Your task to perform on an android device: change the clock display to digital Image 0: 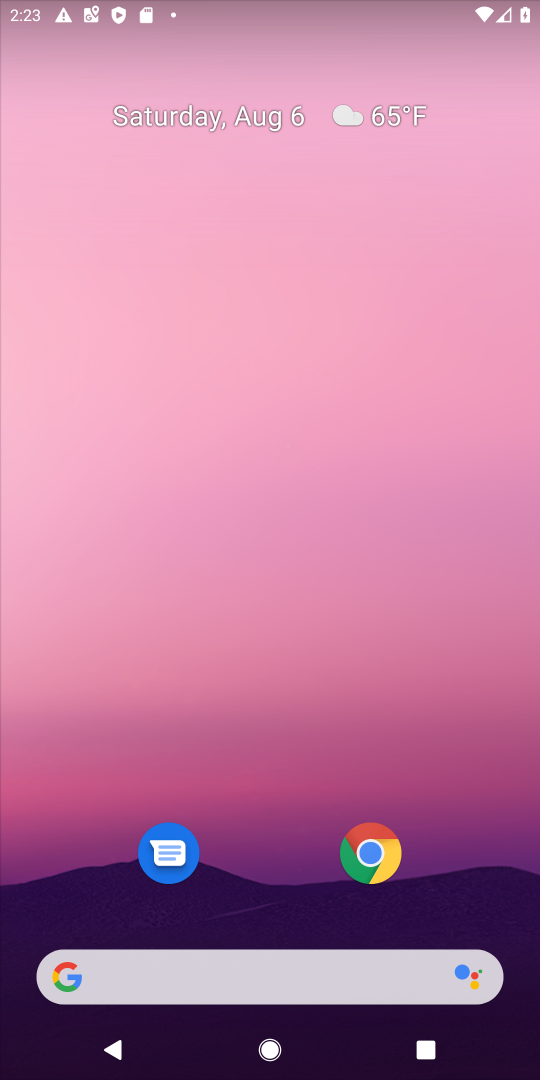
Step 0: drag from (248, 847) to (322, 73)
Your task to perform on an android device: change the clock display to digital Image 1: 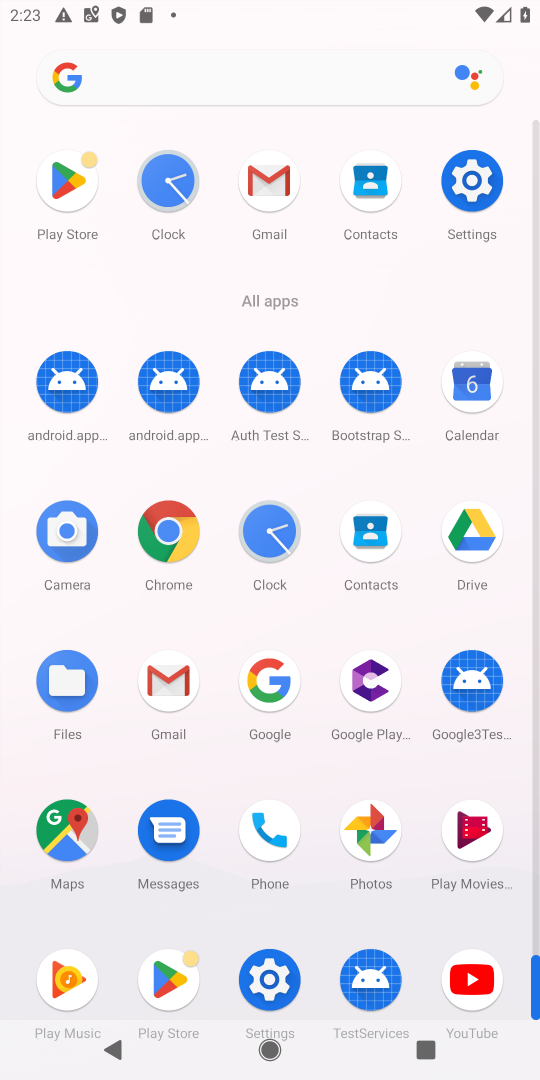
Step 1: click (148, 187)
Your task to perform on an android device: change the clock display to digital Image 2: 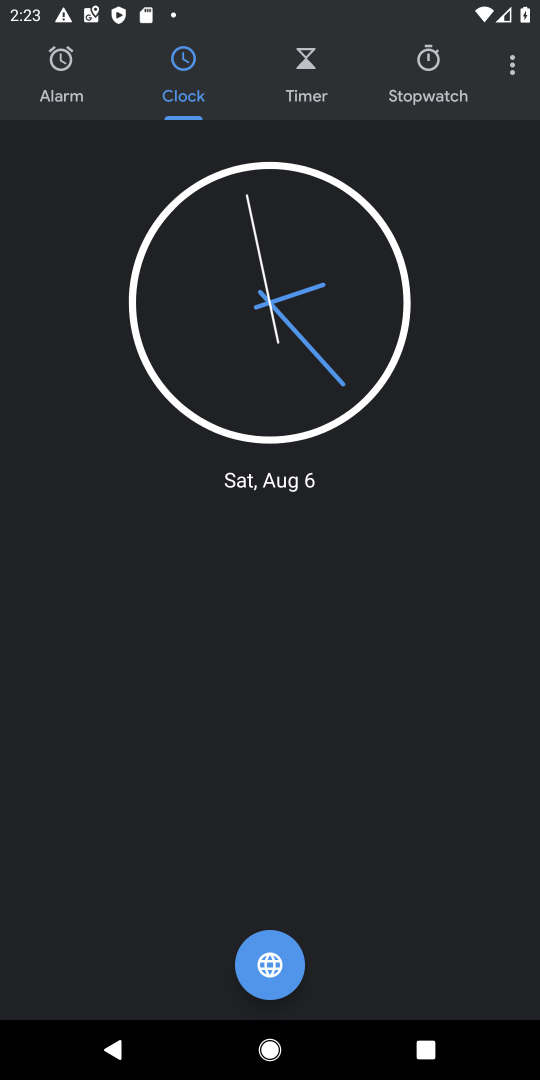
Step 2: click (509, 60)
Your task to perform on an android device: change the clock display to digital Image 3: 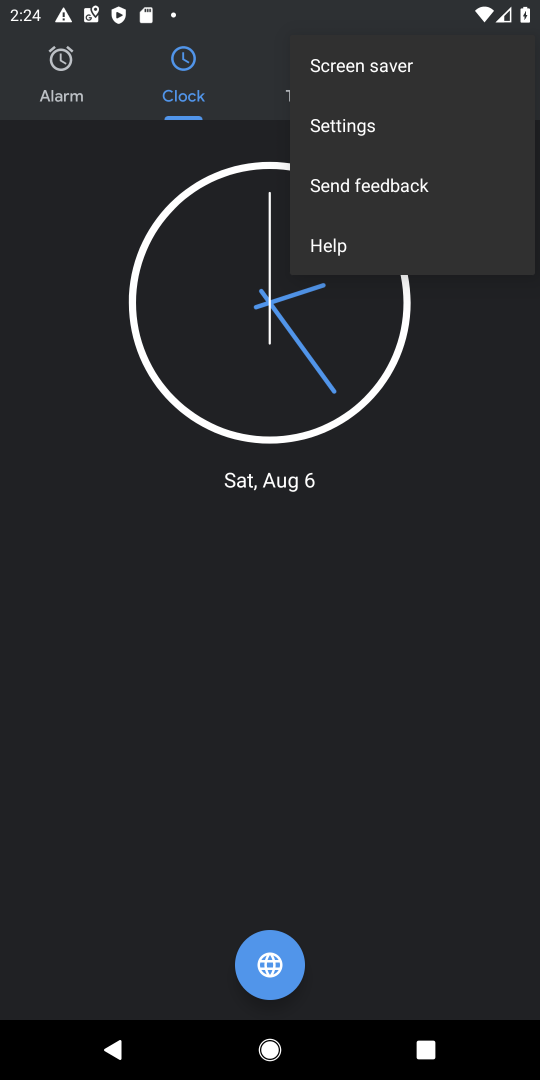
Step 3: click (385, 127)
Your task to perform on an android device: change the clock display to digital Image 4: 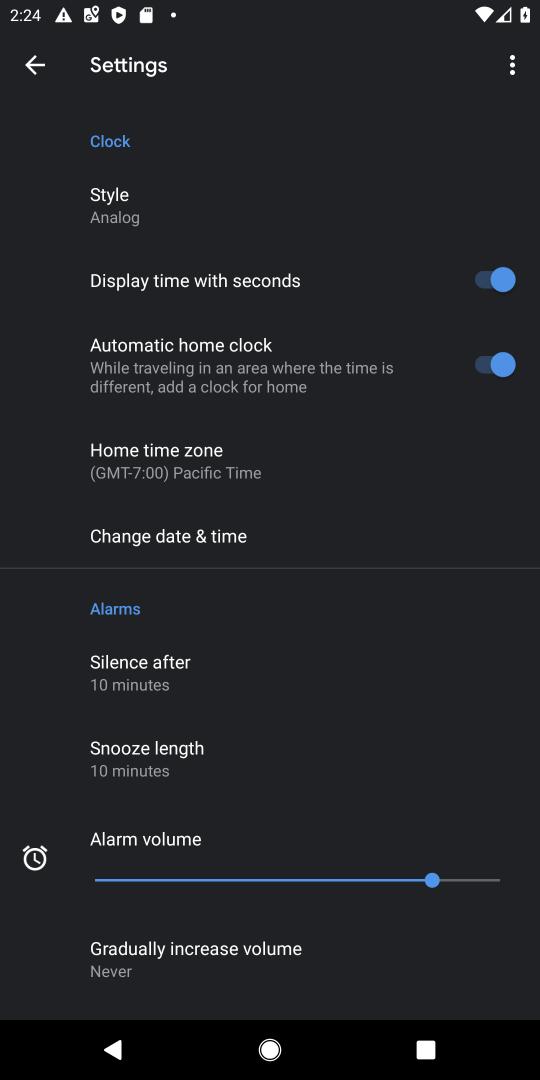
Step 4: click (124, 554)
Your task to perform on an android device: change the clock display to digital Image 5: 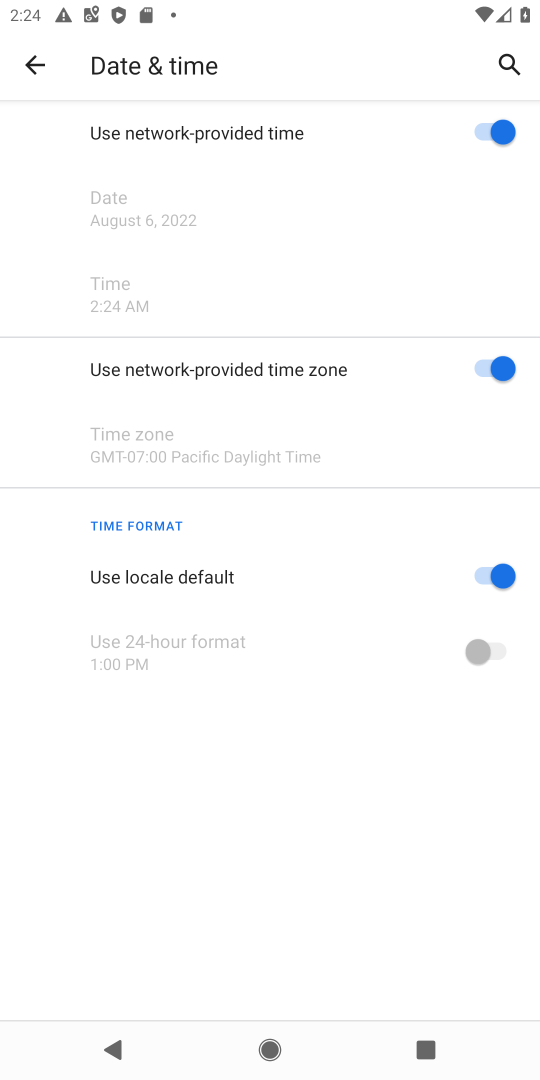
Step 5: press back button
Your task to perform on an android device: change the clock display to digital Image 6: 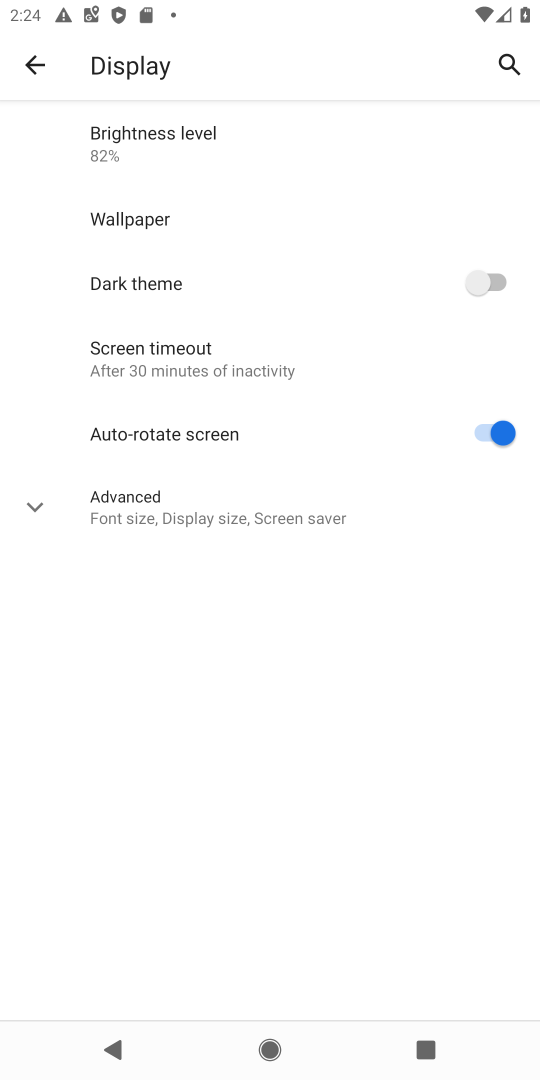
Step 6: press back button
Your task to perform on an android device: change the clock display to digital Image 7: 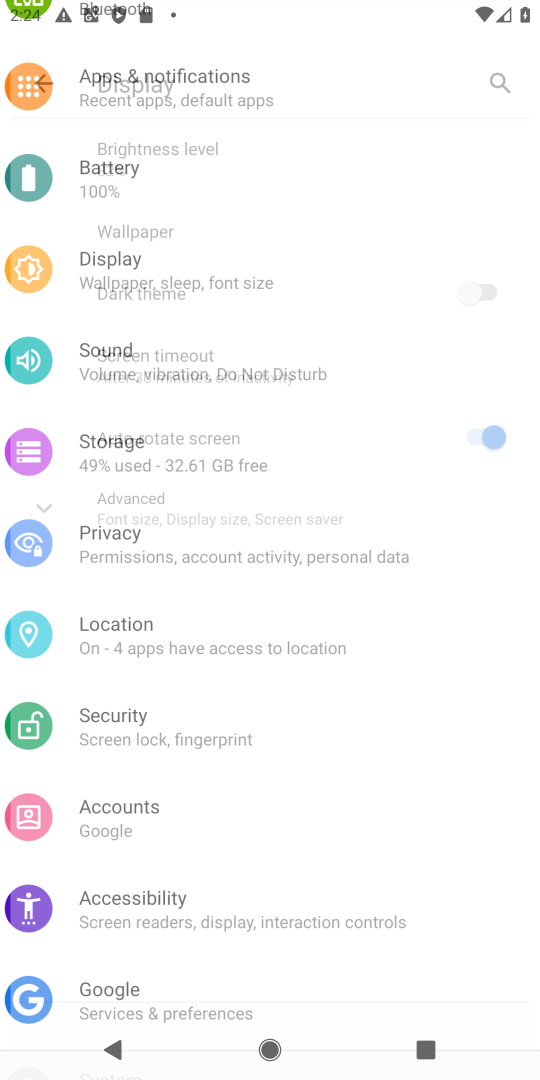
Step 7: press back button
Your task to perform on an android device: change the clock display to digital Image 8: 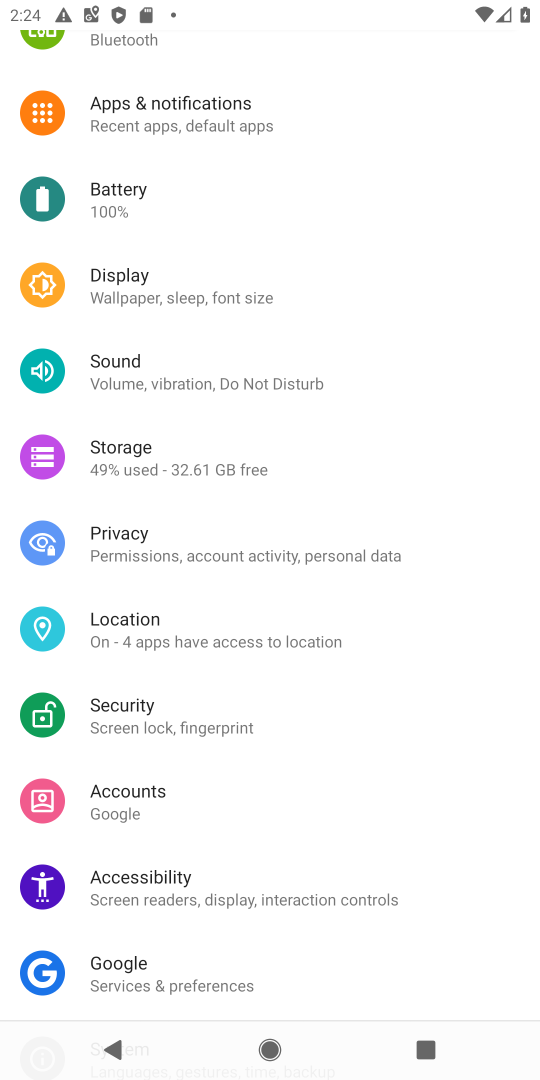
Step 8: press back button
Your task to perform on an android device: change the clock display to digital Image 9: 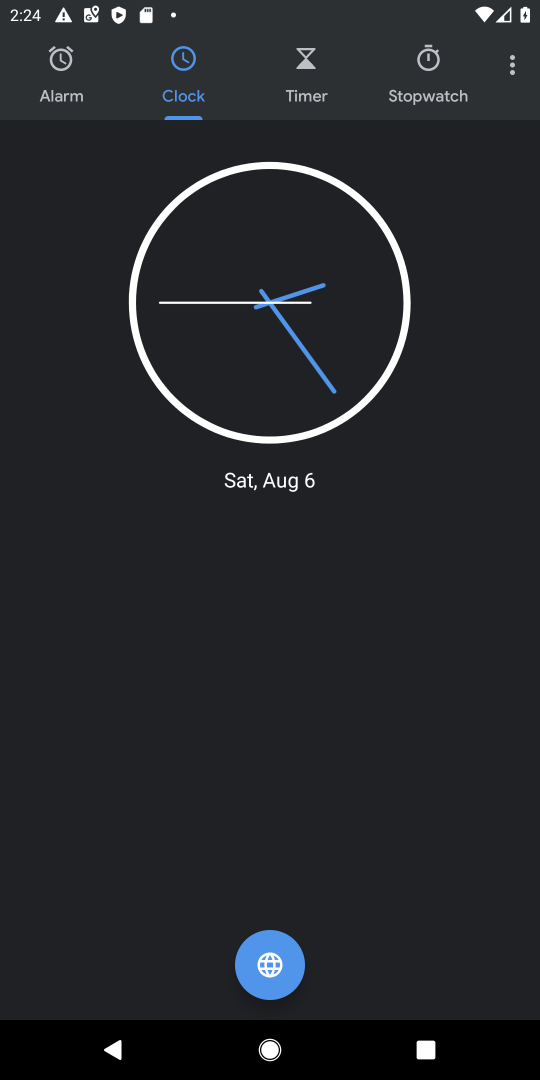
Step 9: press back button
Your task to perform on an android device: change the clock display to digital Image 10: 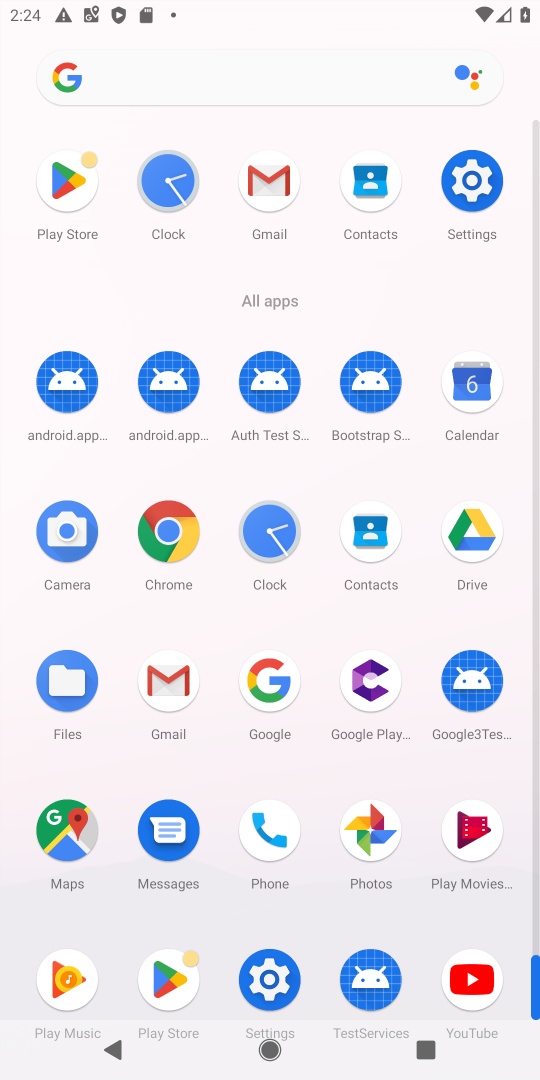
Step 10: click (256, 527)
Your task to perform on an android device: change the clock display to digital Image 11: 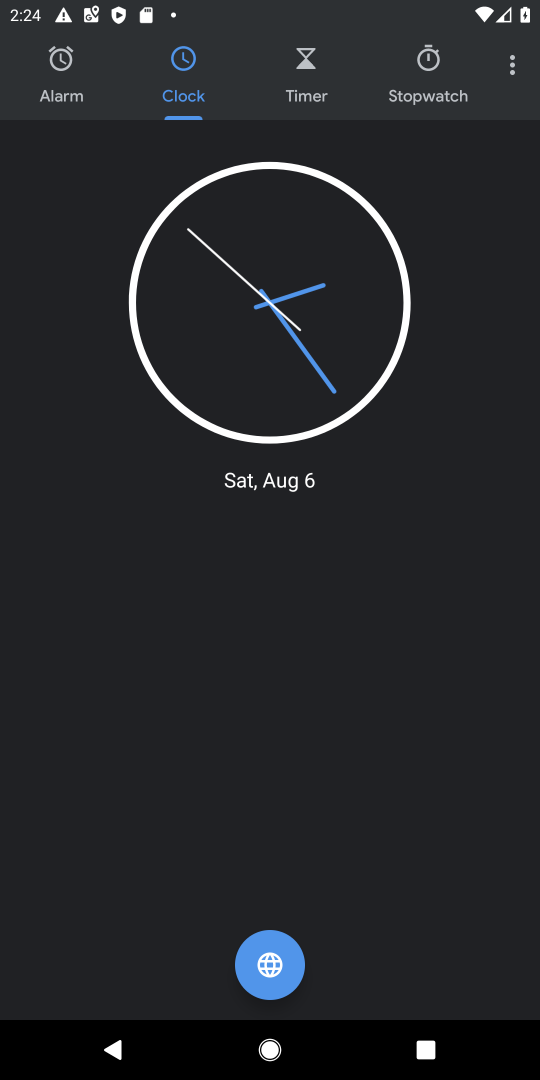
Step 11: click (509, 64)
Your task to perform on an android device: change the clock display to digital Image 12: 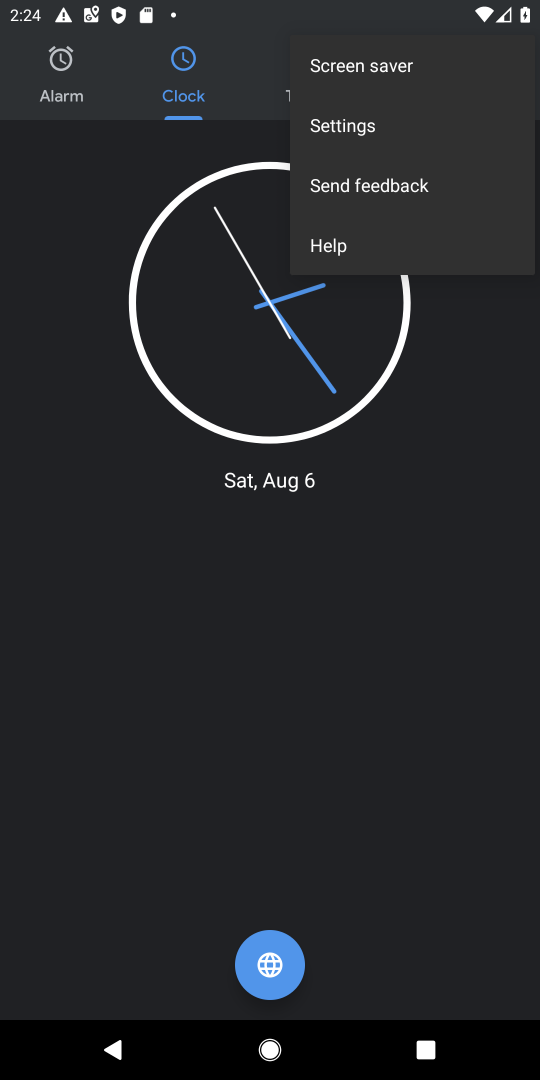
Step 12: click (390, 124)
Your task to perform on an android device: change the clock display to digital Image 13: 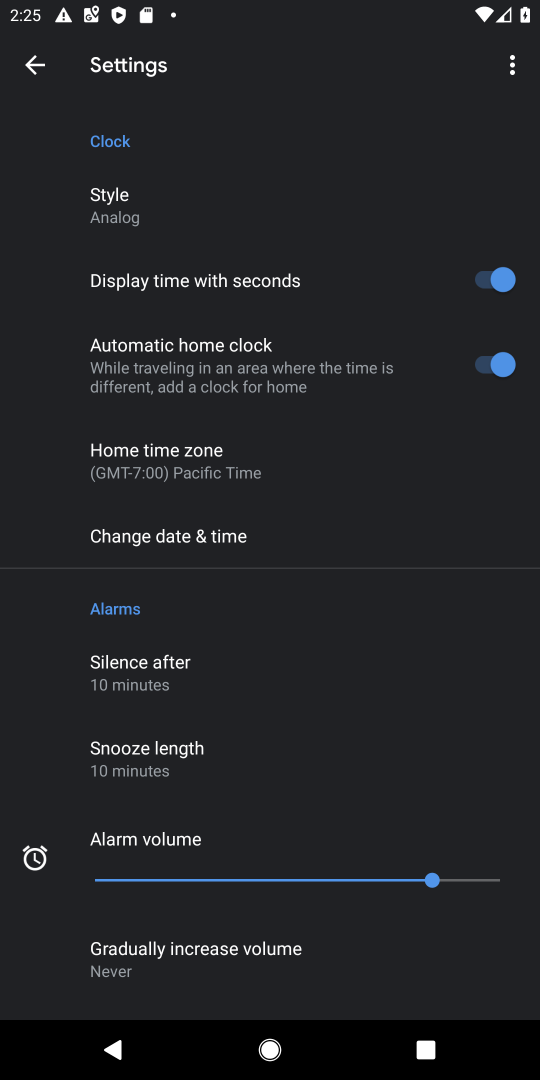
Step 13: click (173, 189)
Your task to perform on an android device: change the clock display to digital Image 14: 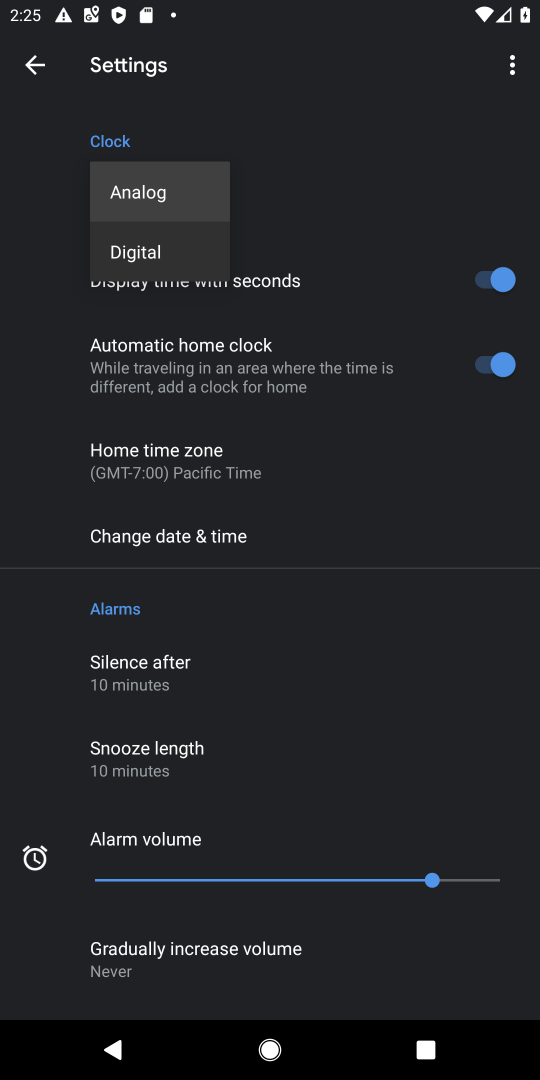
Step 14: click (163, 239)
Your task to perform on an android device: change the clock display to digital Image 15: 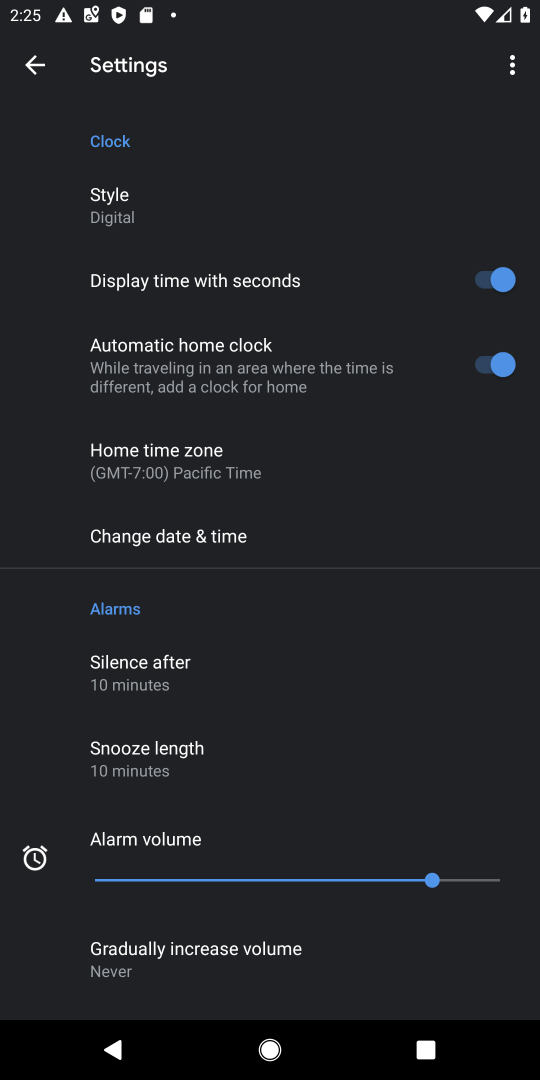
Step 15: task complete